Your task to perform on an android device: Go to settings Image 0: 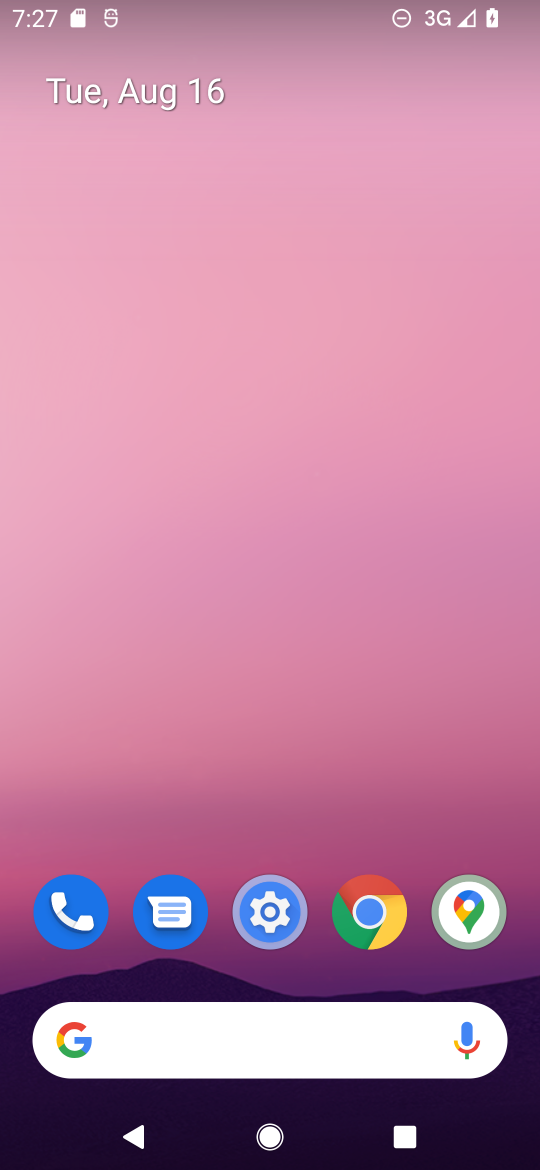
Step 0: click (268, 912)
Your task to perform on an android device: Go to settings Image 1: 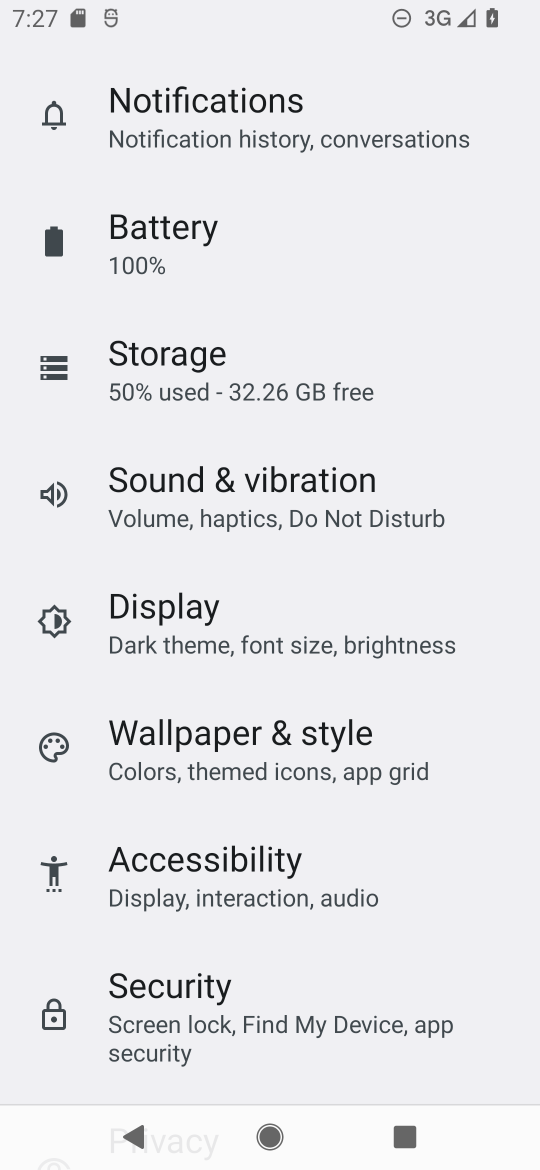
Step 1: task complete